Your task to perform on an android device: turn off notifications in google photos Image 0: 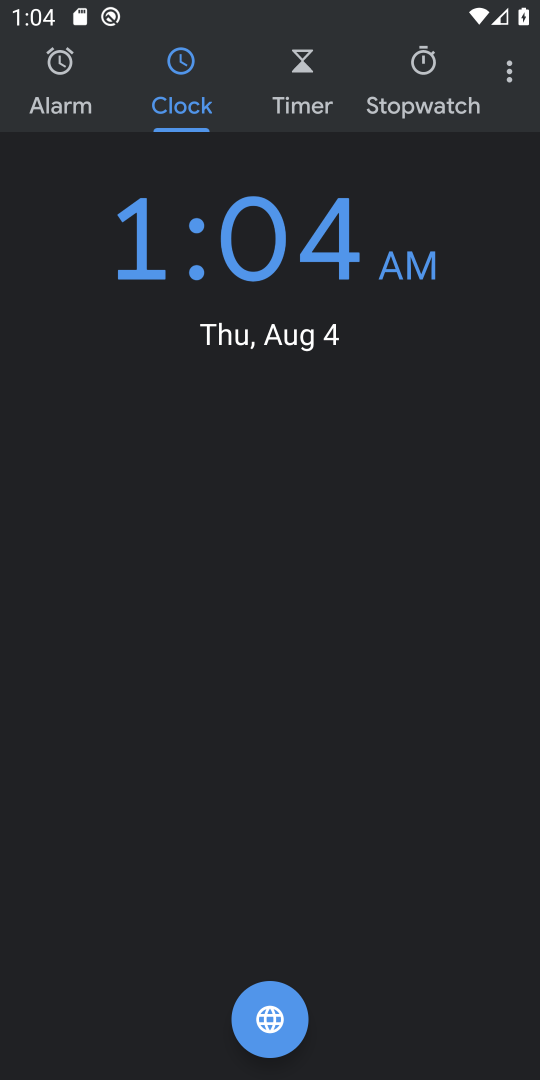
Step 0: press home button
Your task to perform on an android device: turn off notifications in google photos Image 1: 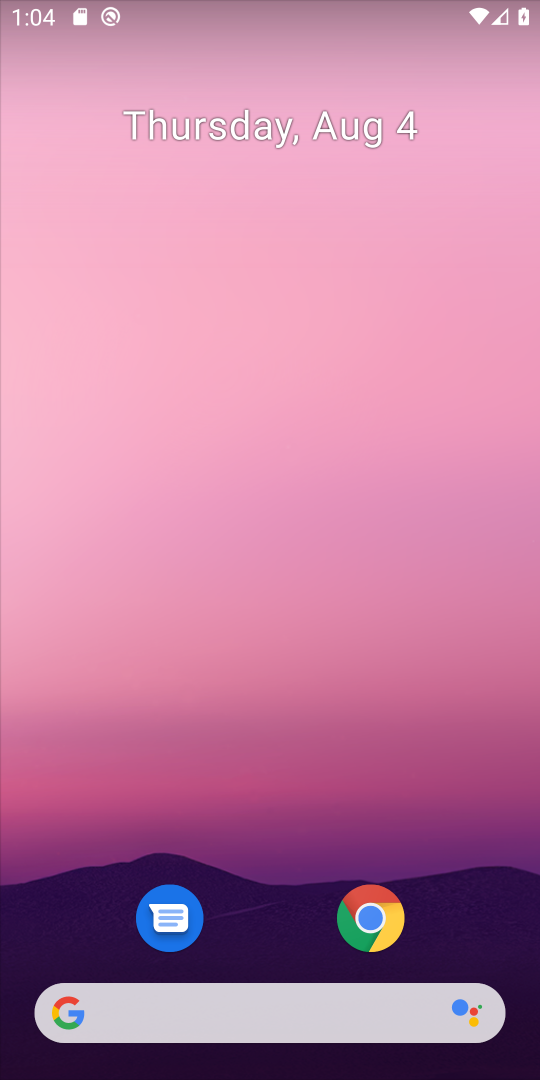
Step 1: drag from (264, 865) to (317, 110)
Your task to perform on an android device: turn off notifications in google photos Image 2: 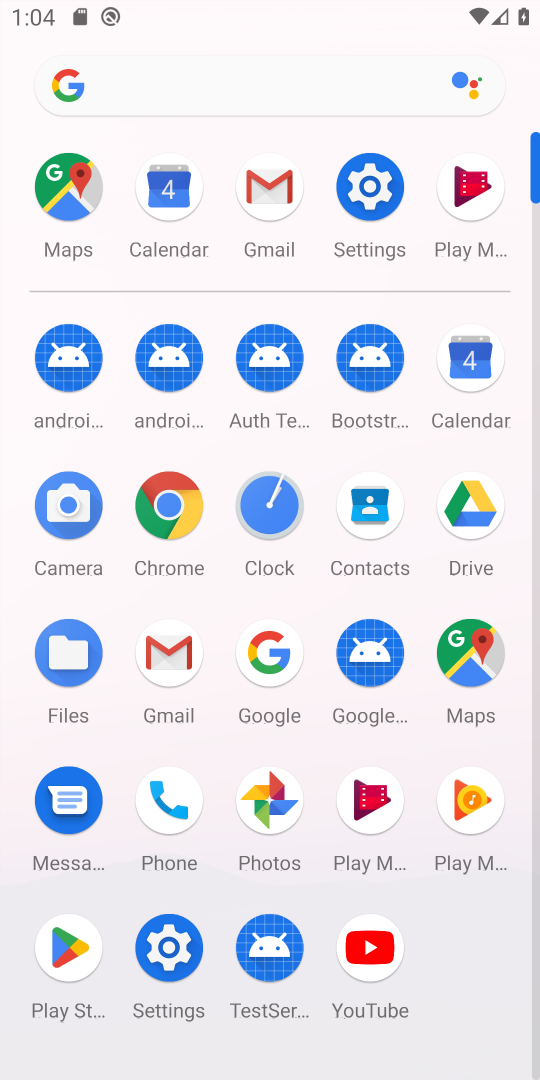
Step 2: click (258, 814)
Your task to perform on an android device: turn off notifications in google photos Image 3: 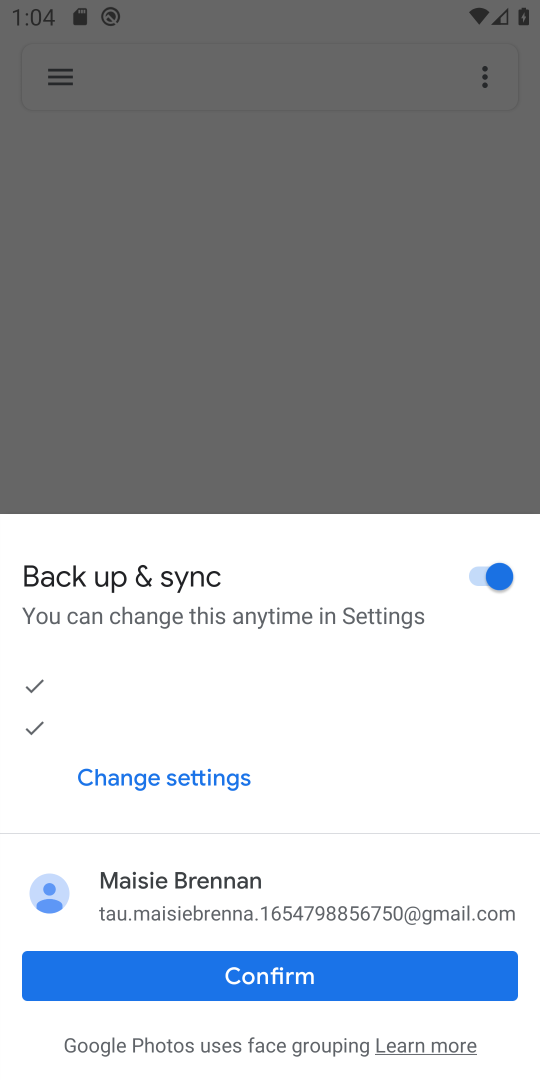
Step 3: click (47, 89)
Your task to perform on an android device: turn off notifications in google photos Image 4: 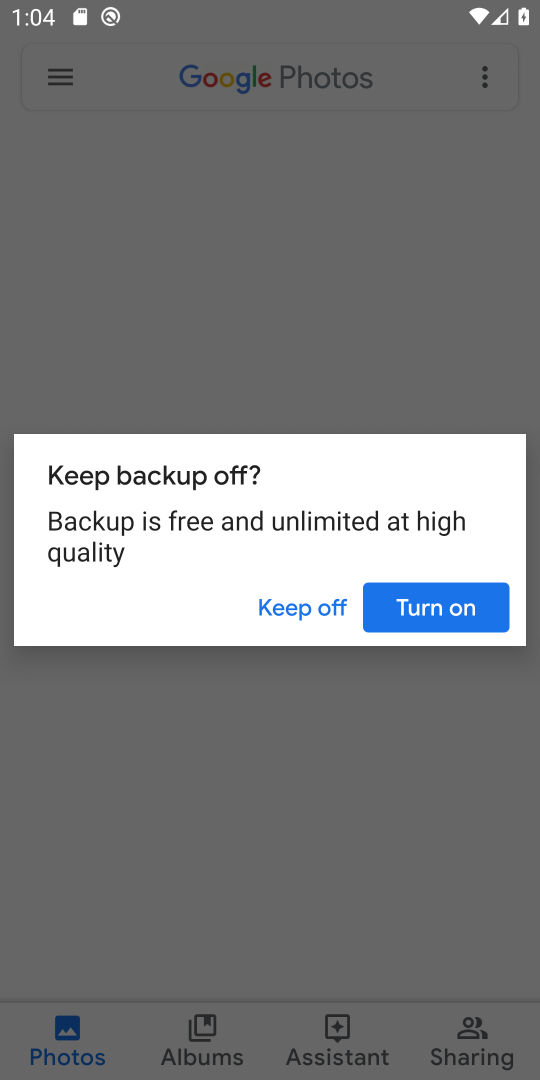
Step 4: click (296, 603)
Your task to perform on an android device: turn off notifications in google photos Image 5: 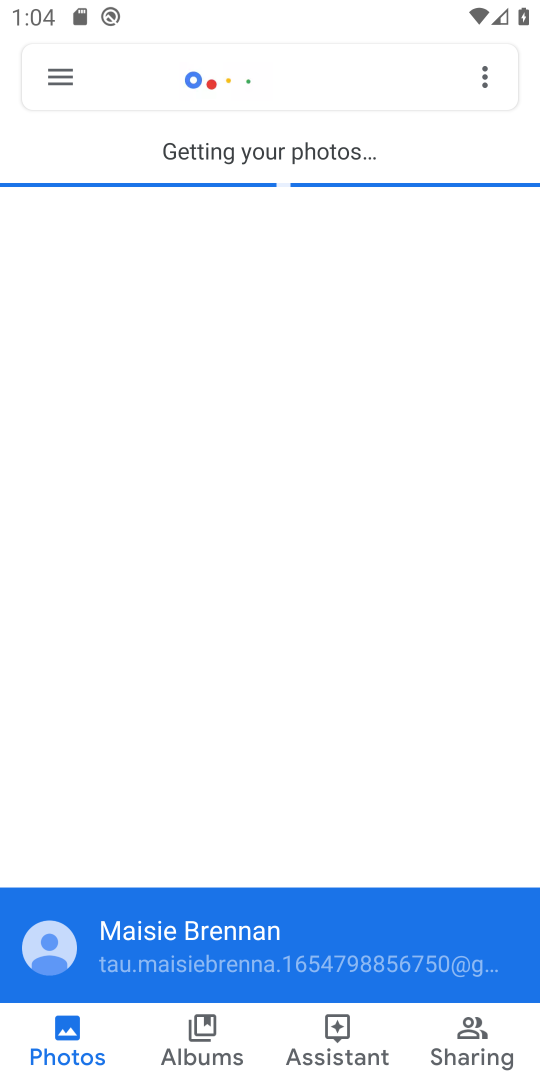
Step 5: click (58, 72)
Your task to perform on an android device: turn off notifications in google photos Image 6: 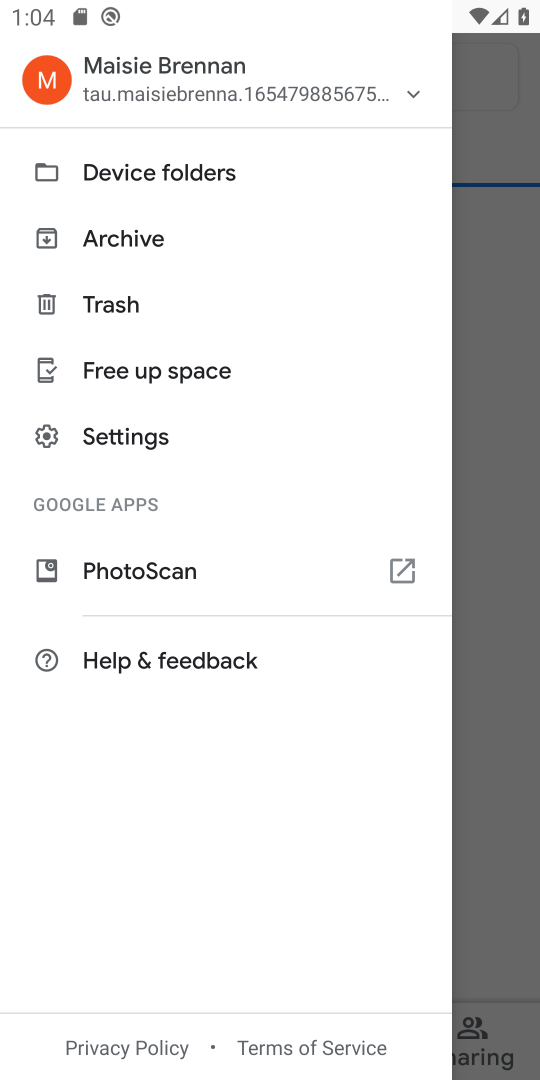
Step 6: click (99, 447)
Your task to perform on an android device: turn off notifications in google photos Image 7: 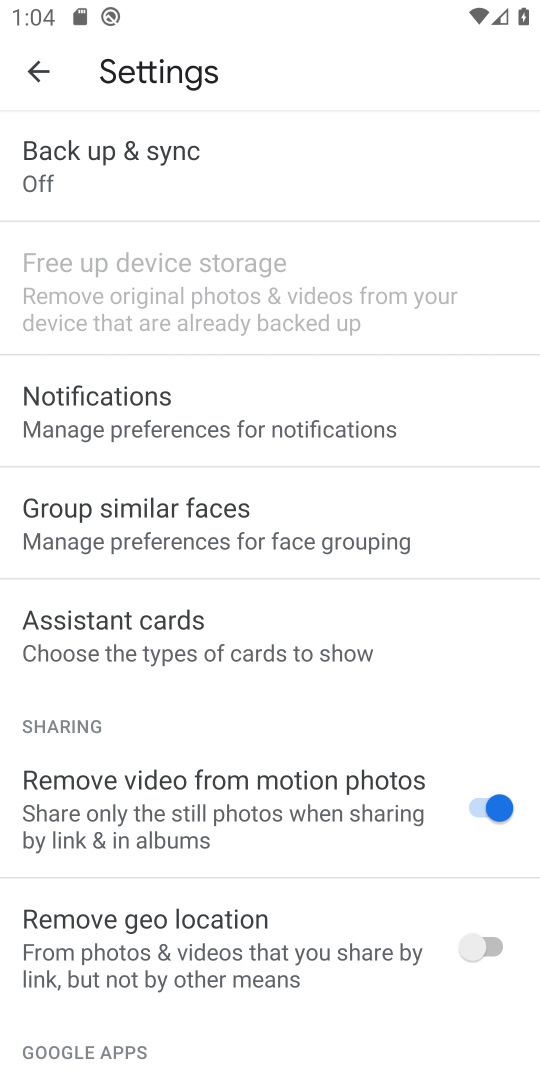
Step 7: drag from (166, 803) to (163, 413)
Your task to perform on an android device: turn off notifications in google photos Image 8: 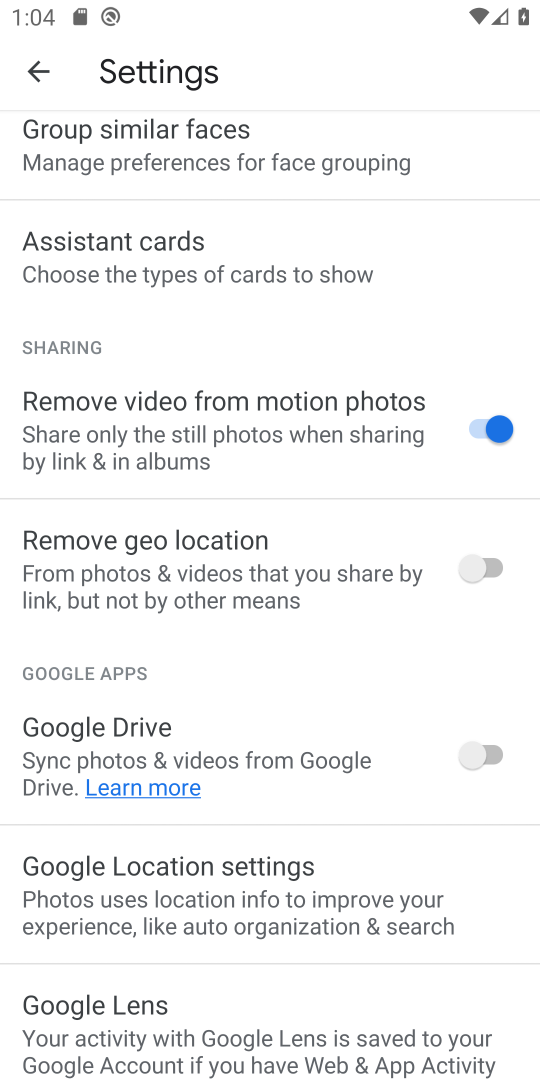
Step 8: click (186, 701)
Your task to perform on an android device: turn off notifications in google photos Image 9: 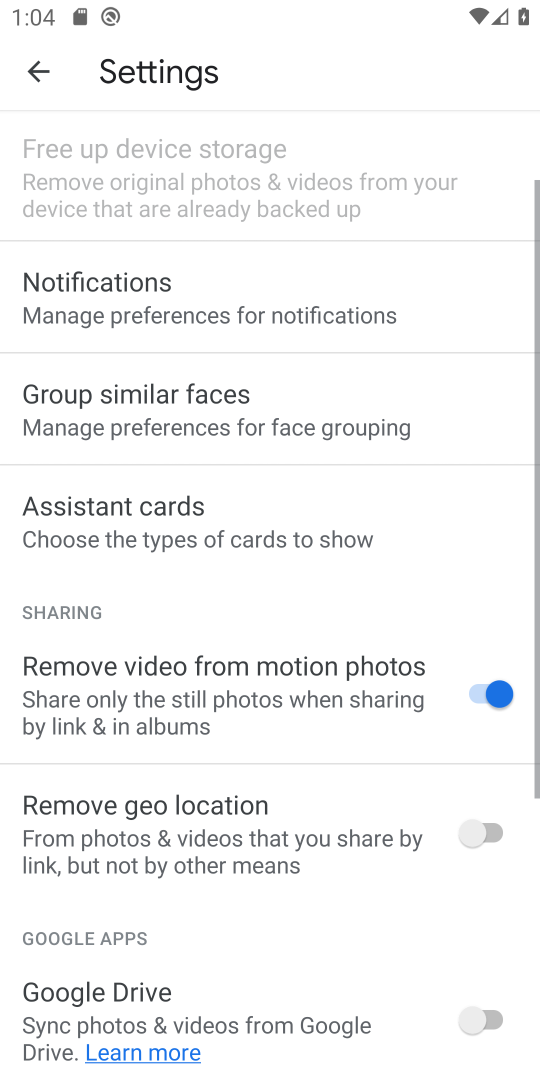
Step 9: drag from (161, 259) to (189, 698)
Your task to perform on an android device: turn off notifications in google photos Image 10: 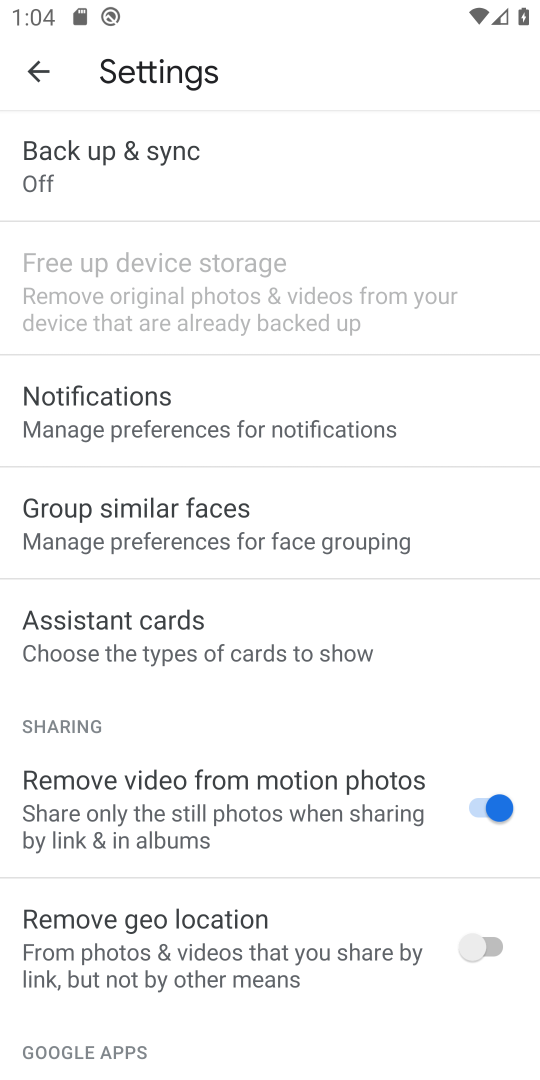
Step 10: click (153, 431)
Your task to perform on an android device: turn off notifications in google photos Image 11: 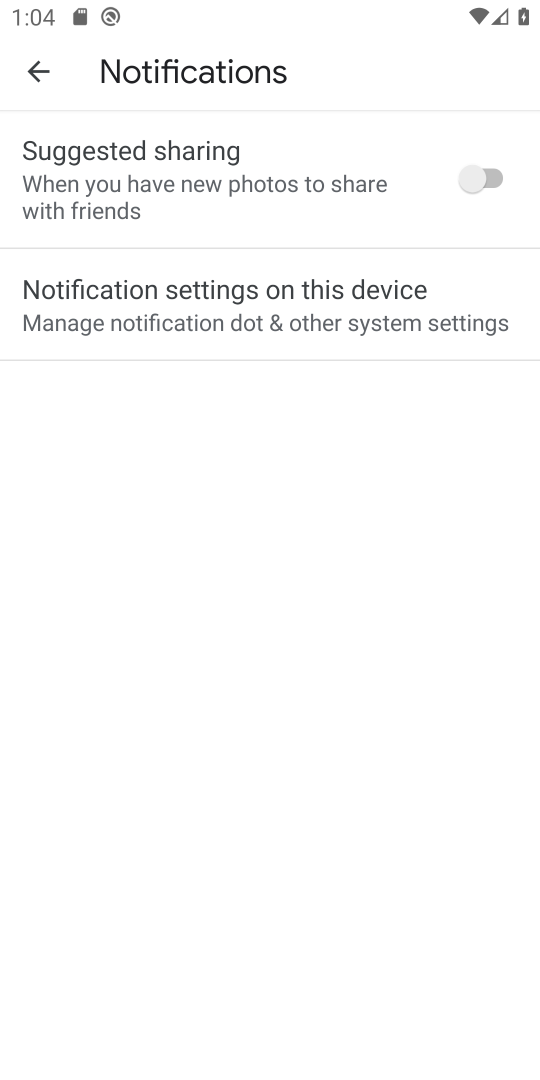
Step 11: click (219, 343)
Your task to perform on an android device: turn off notifications in google photos Image 12: 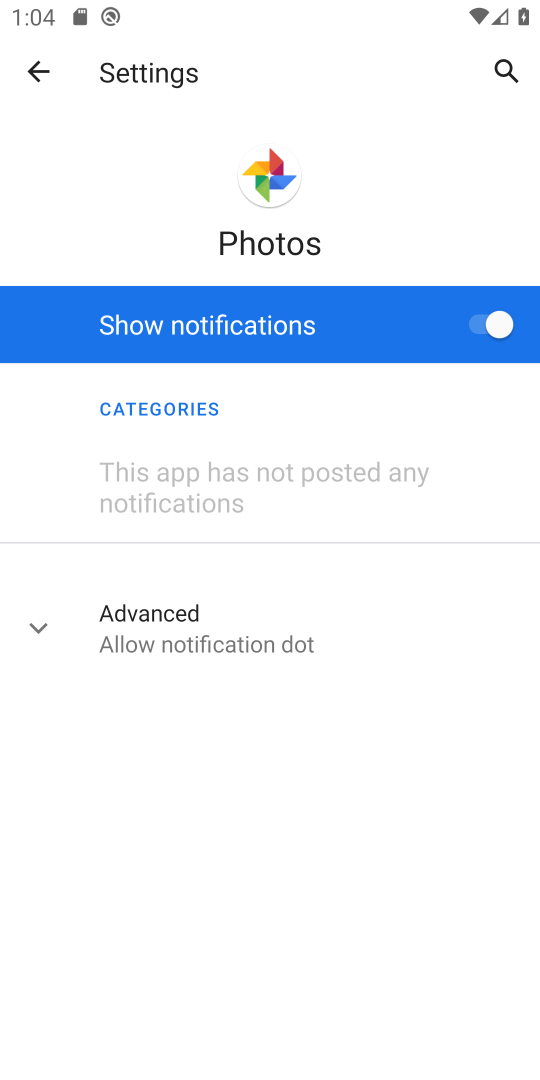
Step 12: click (496, 335)
Your task to perform on an android device: turn off notifications in google photos Image 13: 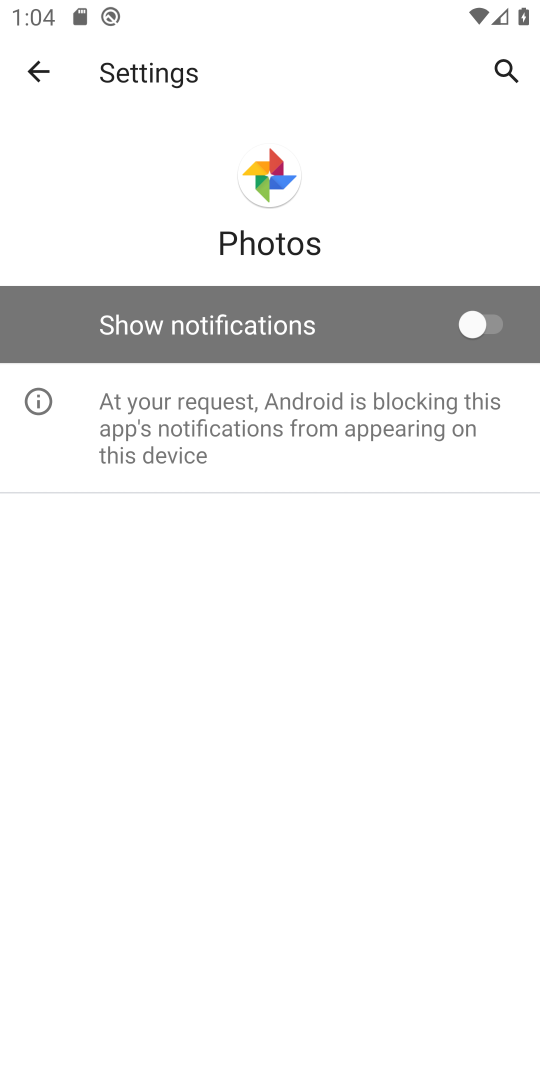
Step 13: task complete